Your task to perform on an android device: check data usage Image 0: 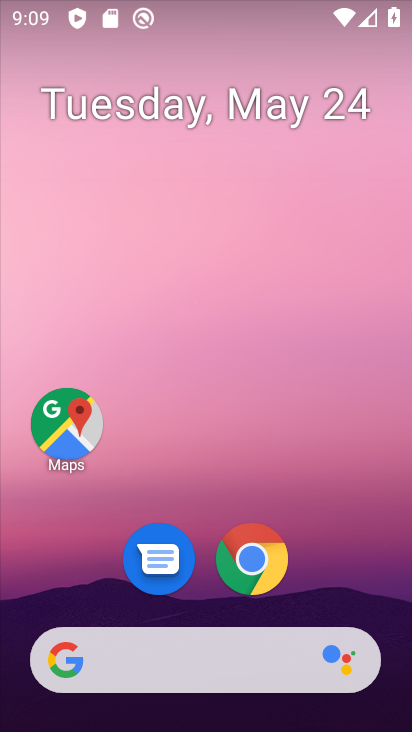
Step 0: drag from (332, 565) to (233, 2)
Your task to perform on an android device: check data usage Image 1: 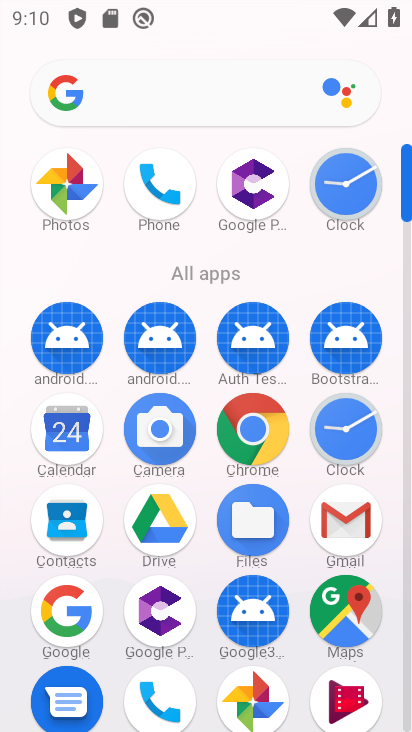
Step 1: click (404, 613)
Your task to perform on an android device: check data usage Image 2: 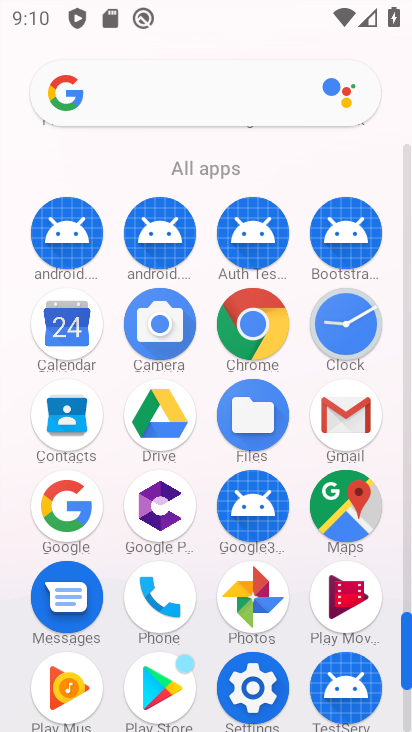
Step 2: click (404, 613)
Your task to perform on an android device: check data usage Image 3: 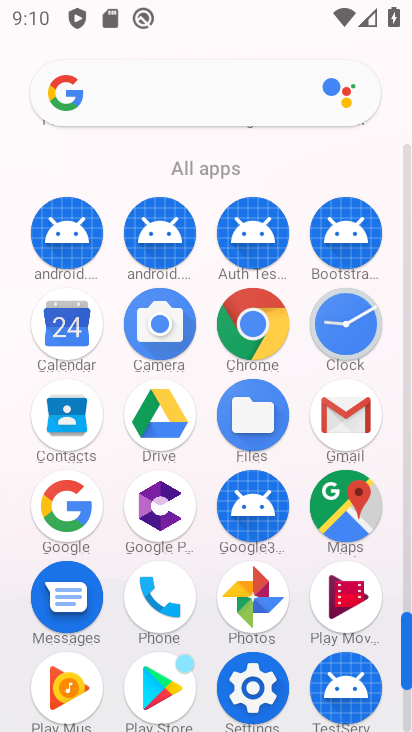
Step 3: click (404, 613)
Your task to perform on an android device: check data usage Image 4: 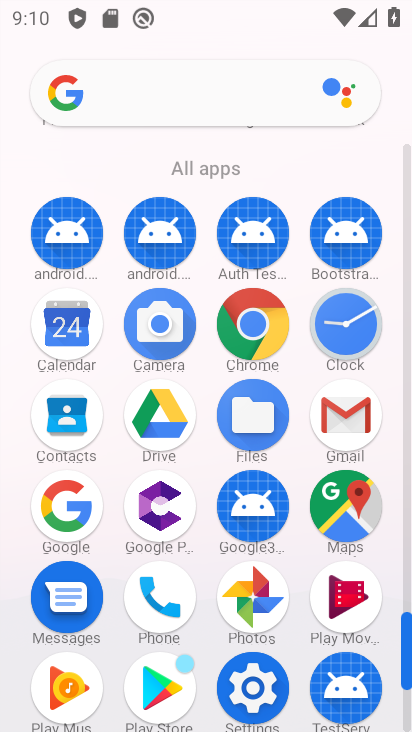
Step 4: click (247, 675)
Your task to perform on an android device: check data usage Image 5: 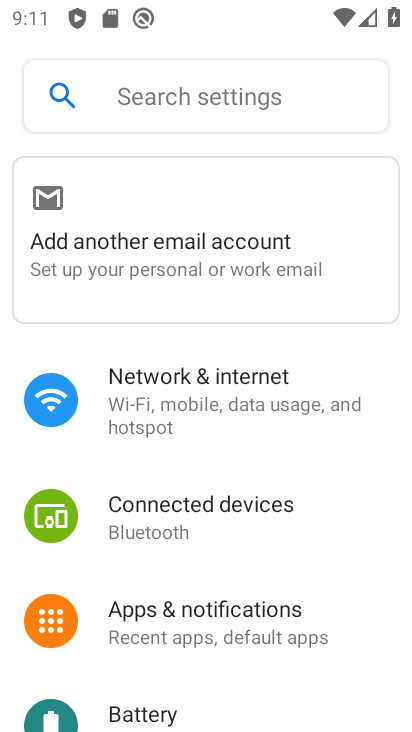
Step 5: click (200, 434)
Your task to perform on an android device: check data usage Image 6: 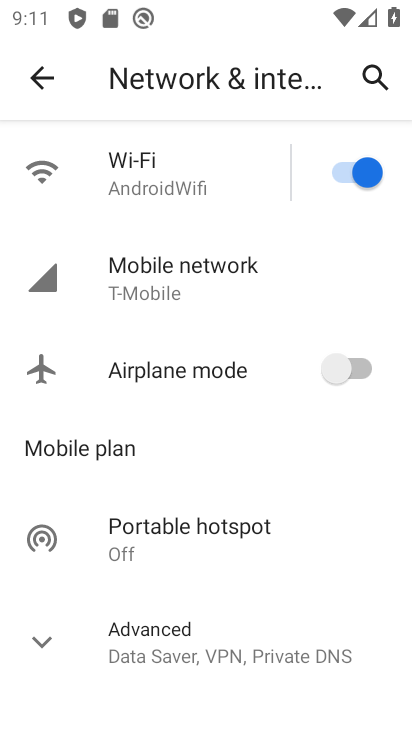
Step 6: click (188, 264)
Your task to perform on an android device: check data usage Image 7: 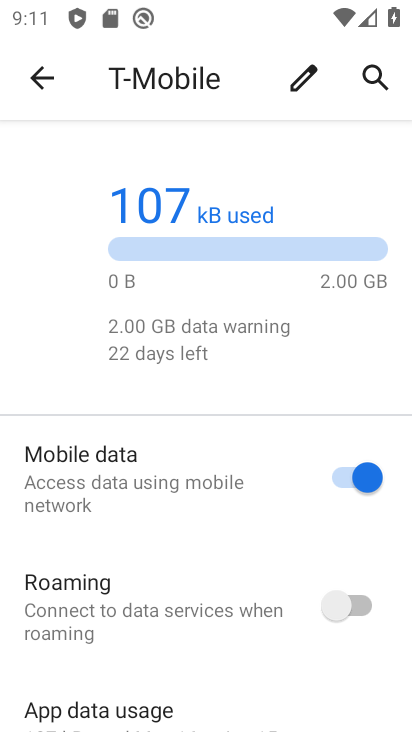
Step 7: task complete